Your task to perform on an android device: What's the news in Argentina? Image 0: 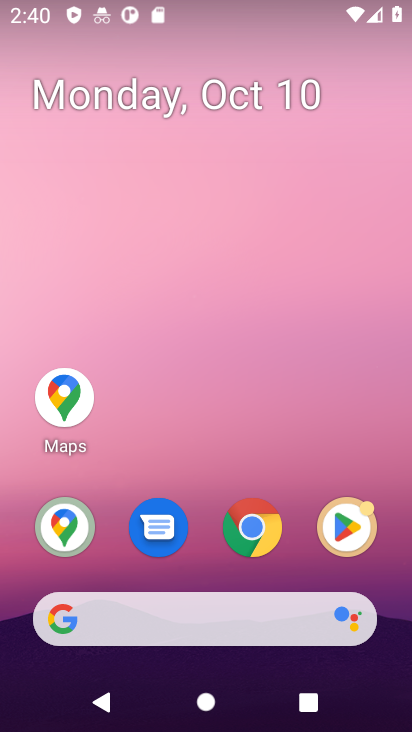
Step 0: click (247, 528)
Your task to perform on an android device: What's the news in Argentina? Image 1: 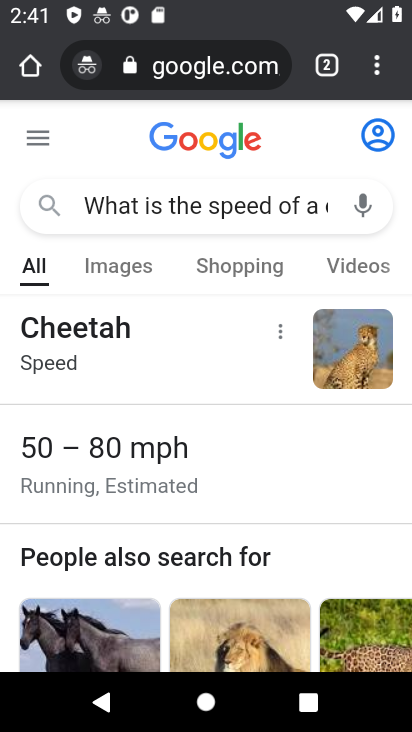
Step 1: click (323, 198)
Your task to perform on an android device: What's the news in Argentina? Image 2: 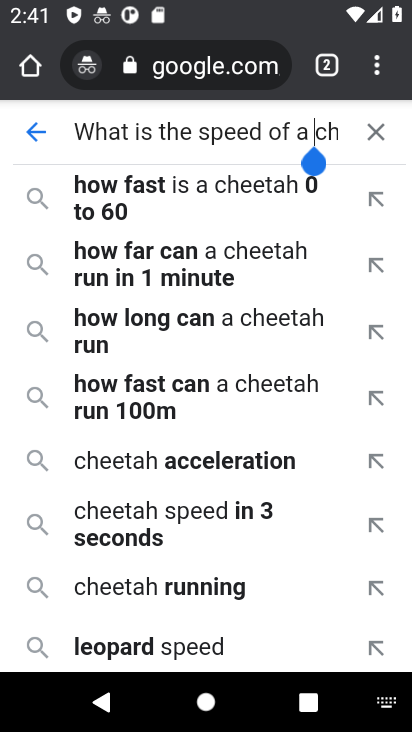
Step 2: click (377, 127)
Your task to perform on an android device: What's the news in Argentina? Image 3: 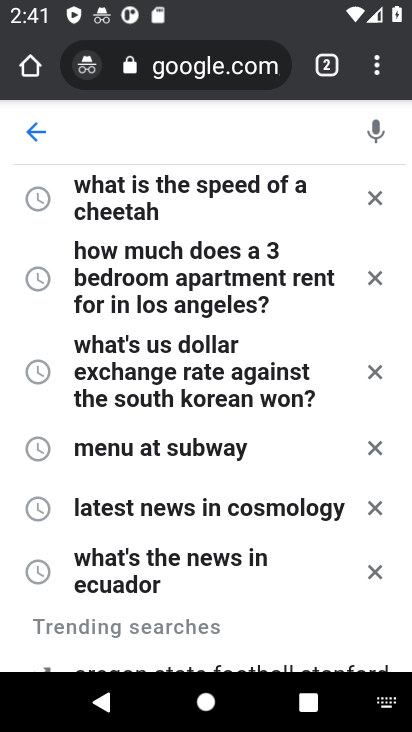
Step 3: type "What's the news in Argentina"
Your task to perform on an android device: What's the news in Argentina? Image 4: 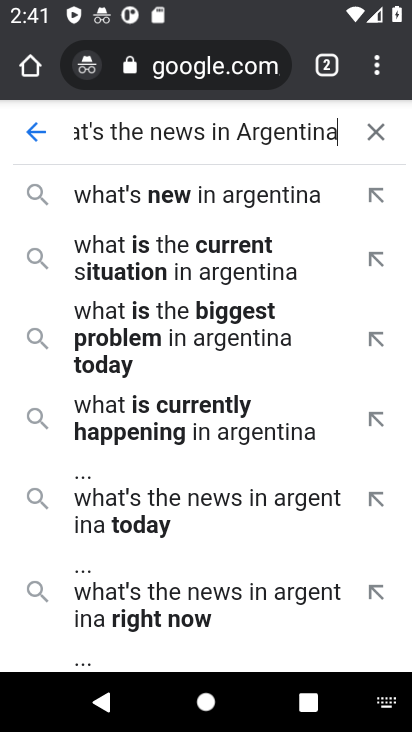
Step 4: click (291, 199)
Your task to perform on an android device: What's the news in Argentina? Image 5: 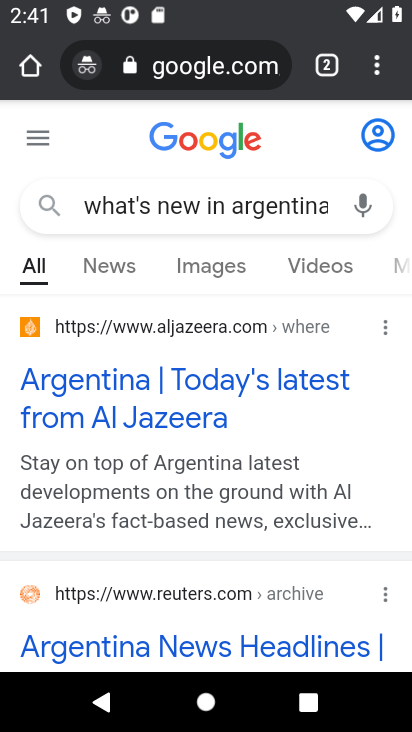
Step 5: click (248, 375)
Your task to perform on an android device: What's the news in Argentina? Image 6: 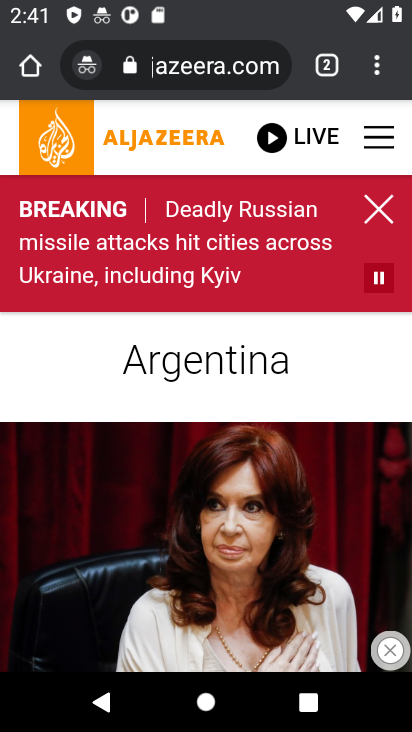
Step 6: task complete